Your task to perform on an android device: Open Yahoo.com Image 0: 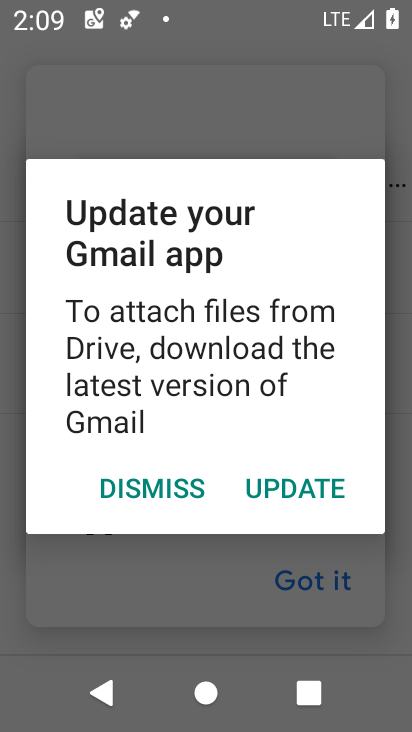
Step 0: press home button
Your task to perform on an android device: Open Yahoo.com Image 1: 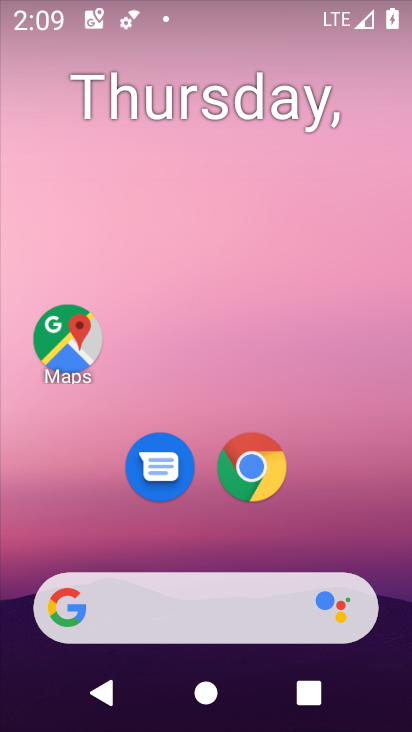
Step 1: drag from (201, 544) to (124, 25)
Your task to perform on an android device: Open Yahoo.com Image 2: 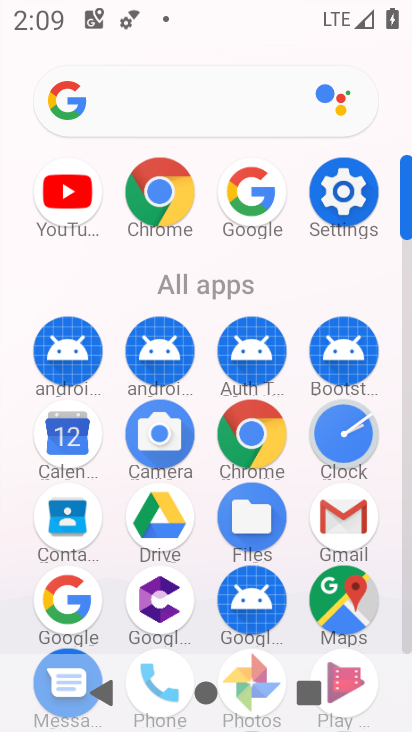
Step 2: click (255, 421)
Your task to perform on an android device: Open Yahoo.com Image 3: 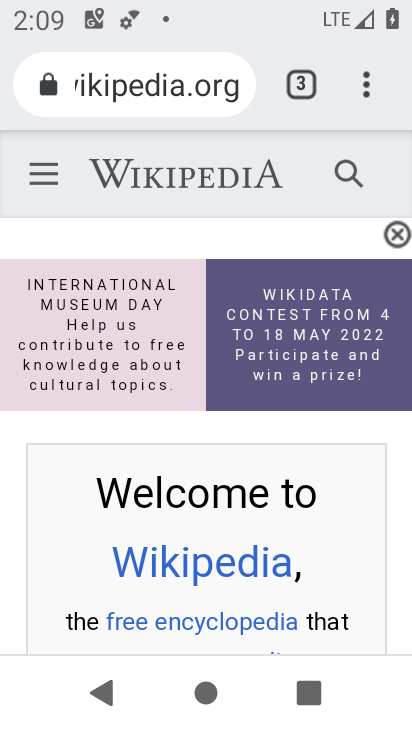
Step 3: click (303, 76)
Your task to perform on an android device: Open Yahoo.com Image 4: 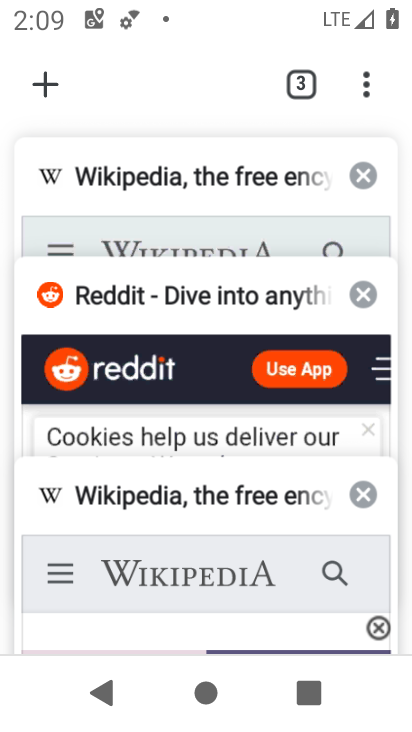
Step 4: click (42, 74)
Your task to perform on an android device: Open Yahoo.com Image 5: 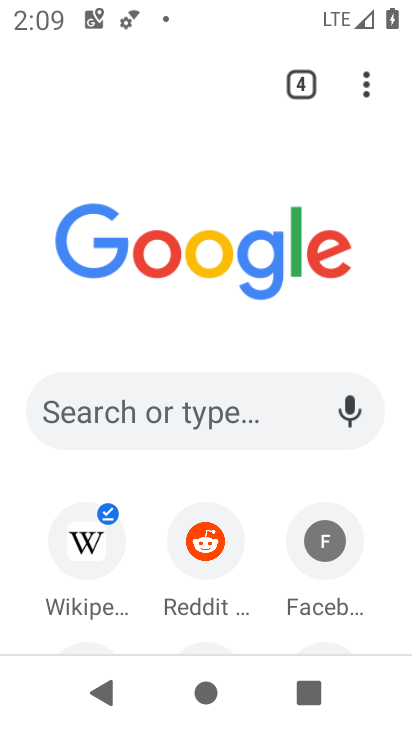
Step 5: drag from (267, 571) to (203, 166)
Your task to perform on an android device: Open Yahoo.com Image 6: 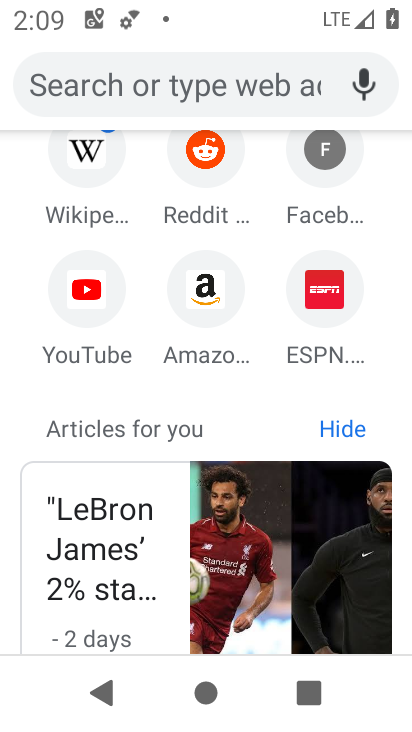
Step 6: click (209, 97)
Your task to perform on an android device: Open Yahoo.com Image 7: 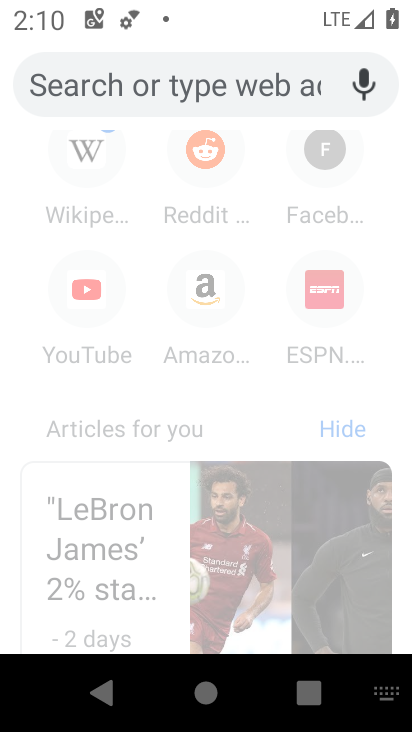
Step 7: type "yahoo"
Your task to perform on an android device: Open Yahoo.com Image 8: 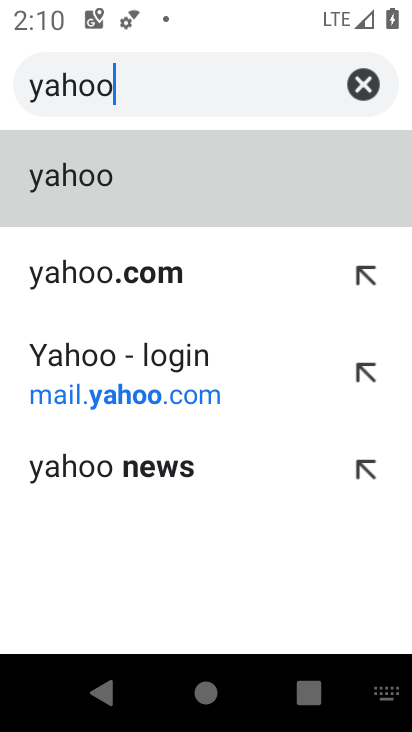
Step 8: click (165, 373)
Your task to perform on an android device: Open Yahoo.com Image 9: 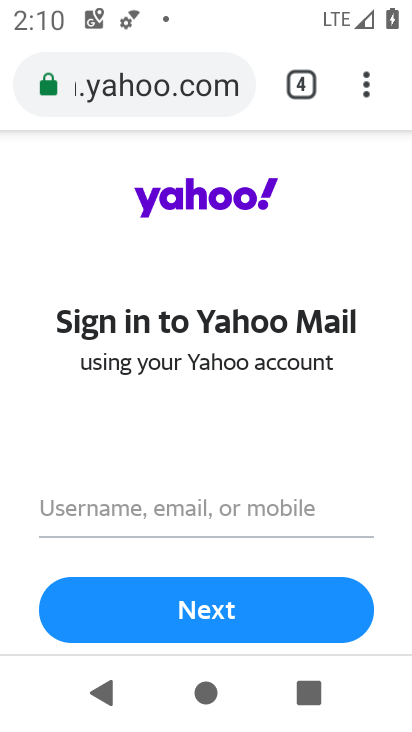
Step 9: click (312, 603)
Your task to perform on an android device: Open Yahoo.com Image 10: 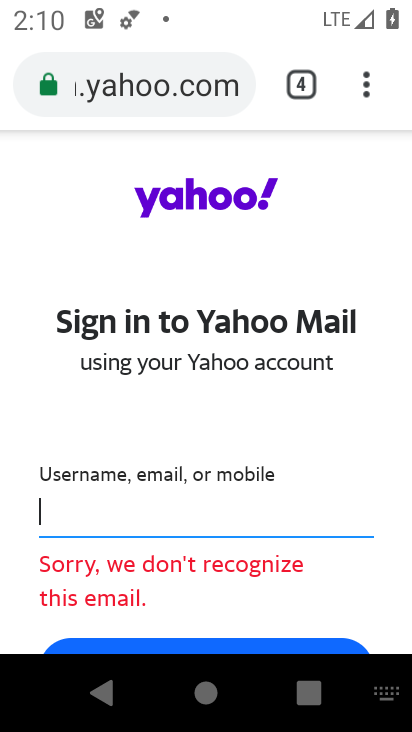
Step 10: task complete